Your task to perform on an android device: Open Android settings Image 0: 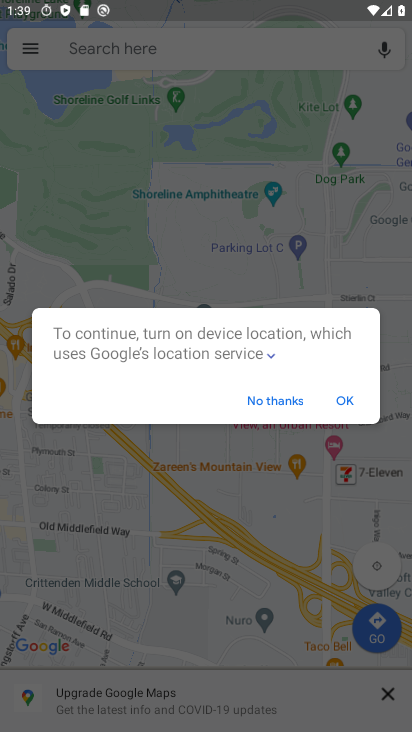
Step 0: press home button
Your task to perform on an android device: Open Android settings Image 1: 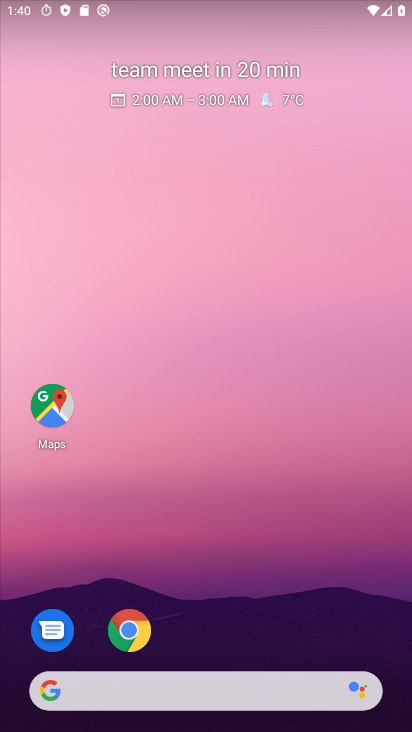
Step 1: drag from (213, 683) to (217, 62)
Your task to perform on an android device: Open Android settings Image 2: 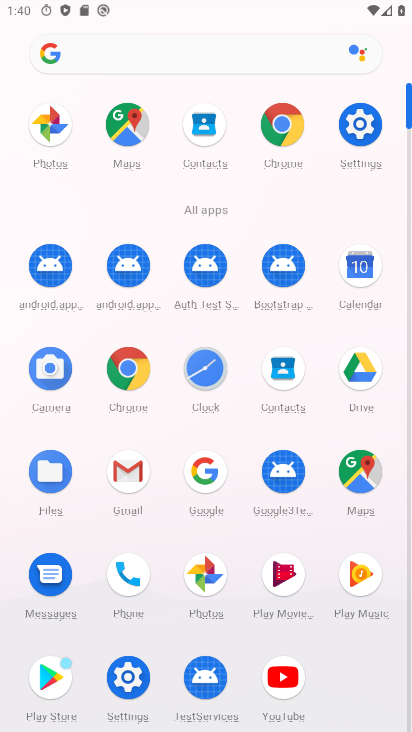
Step 2: click (147, 671)
Your task to perform on an android device: Open Android settings Image 3: 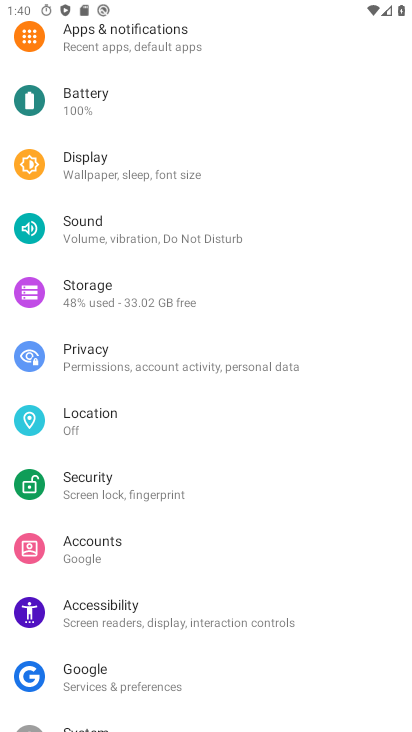
Step 3: drag from (174, 584) to (147, 118)
Your task to perform on an android device: Open Android settings Image 4: 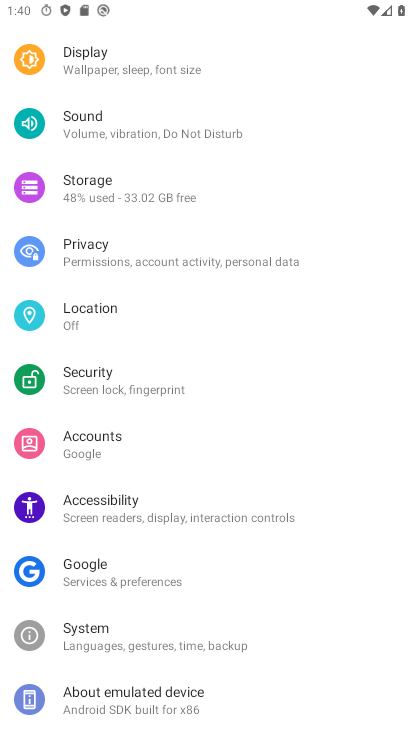
Step 4: click (146, 686)
Your task to perform on an android device: Open Android settings Image 5: 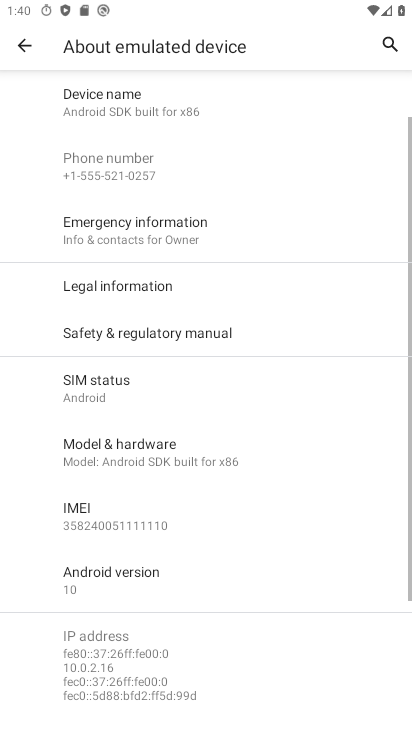
Step 5: click (189, 568)
Your task to perform on an android device: Open Android settings Image 6: 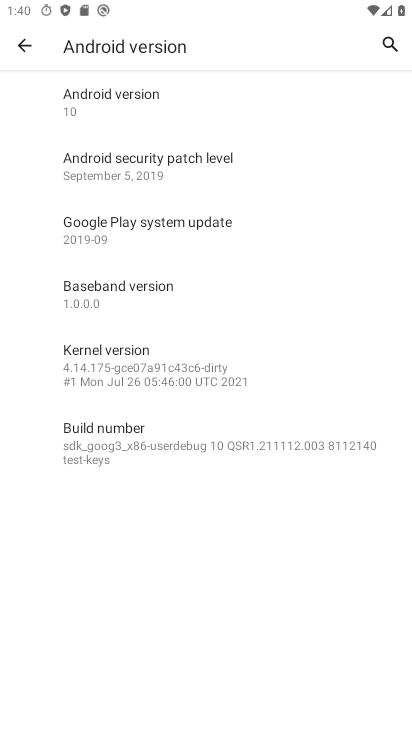
Step 6: task complete